Your task to perform on an android device: change the clock display to digital Image 0: 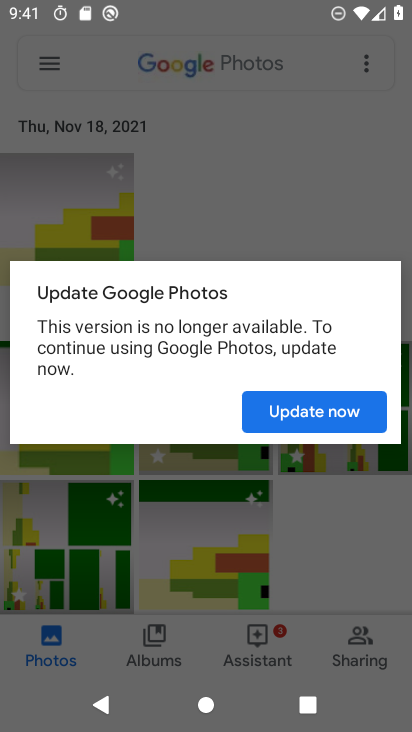
Step 0: press home button
Your task to perform on an android device: change the clock display to digital Image 1: 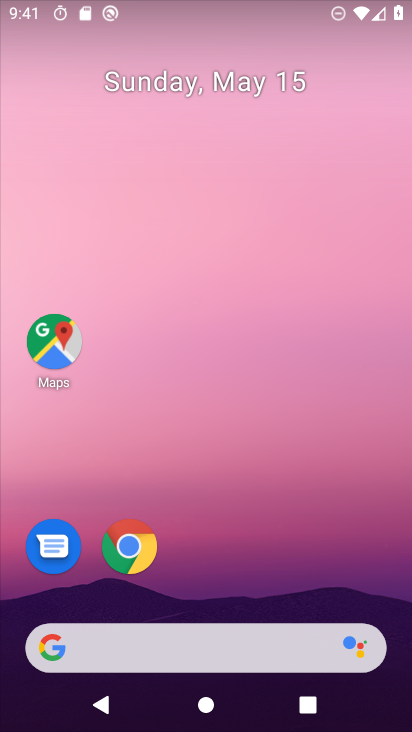
Step 1: drag from (286, 550) to (315, 65)
Your task to perform on an android device: change the clock display to digital Image 2: 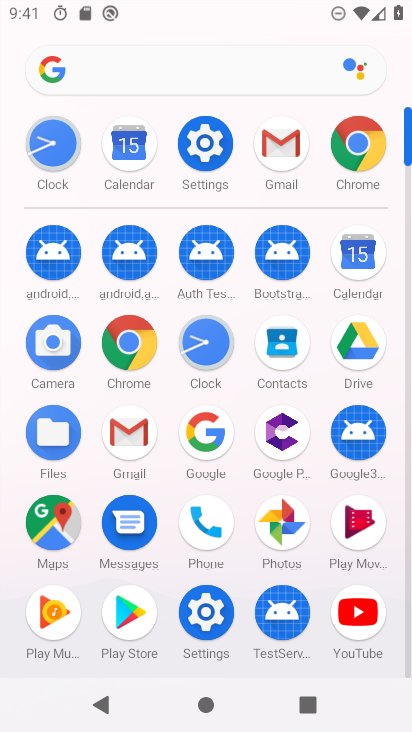
Step 2: click (44, 142)
Your task to perform on an android device: change the clock display to digital Image 3: 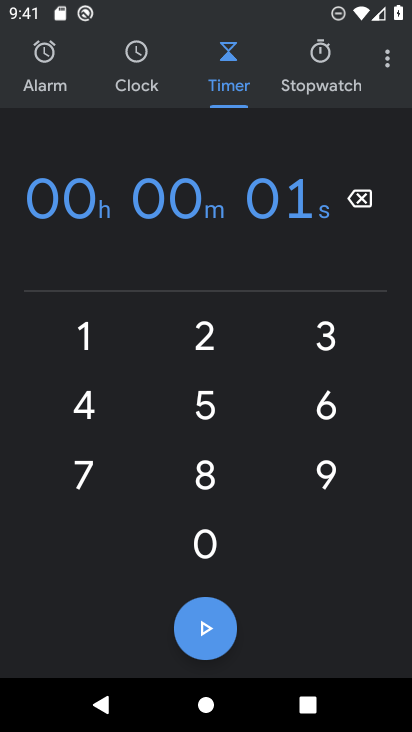
Step 3: click (112, 66)
Your task to perform on an android device: change the clock display to digital Image 4: 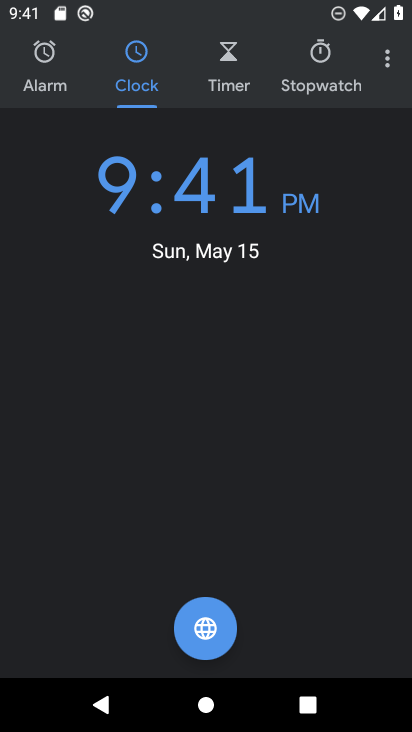
Step 4: task complete